Your task to perform on an android device: Open my contact list Image 0: 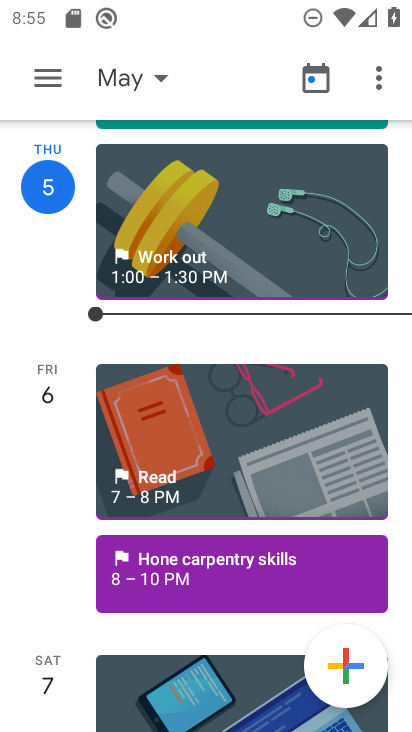
Step 0: press home button
Your task to perform on an android device: Open my contact list Image 1: 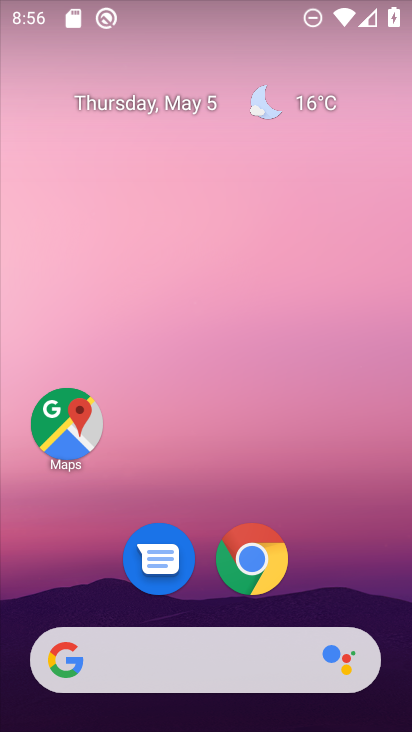
Step 1: drag from (349, 571) to (344, 24)
Your task to perform on an android device: Open my contact list Image 2: 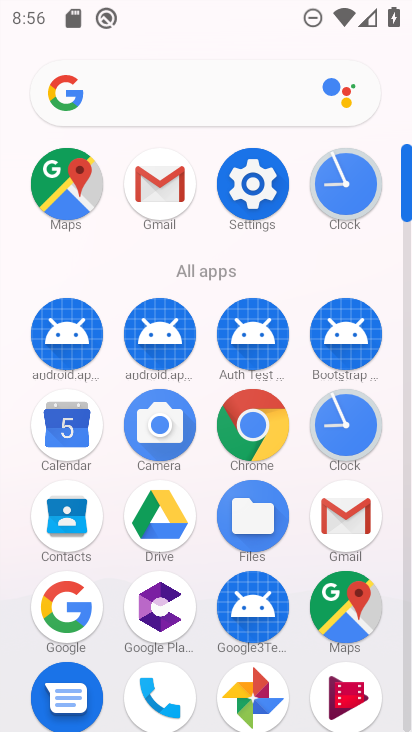
Step 2: click (66, 516)
Your task to perform on an android device: Open my contact list Image 3: 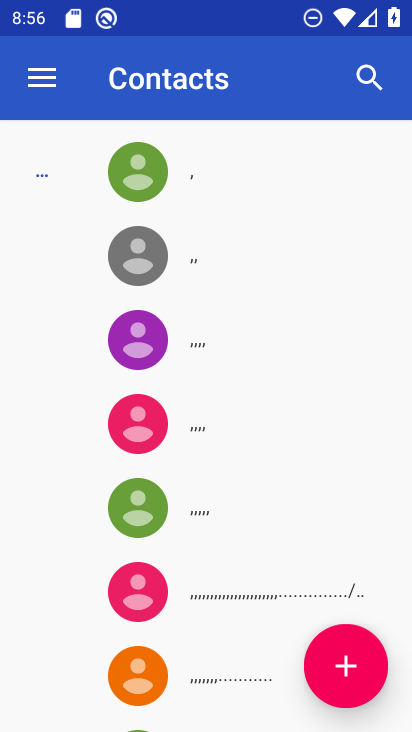
Step 3: task complete